Your task to perform on an android device: allow notifications from all sites in the chrome app Image 0: 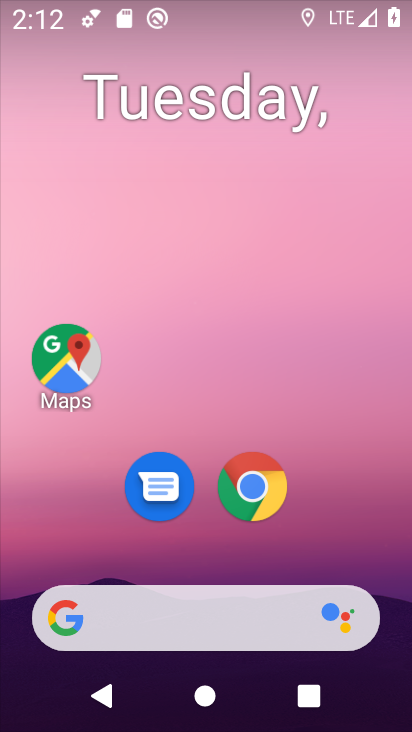
Step 0: drag from (364, 433) to (371, 92)
Your task to perform on an android device: allow notifications from all sites in the chrome app Image 1: 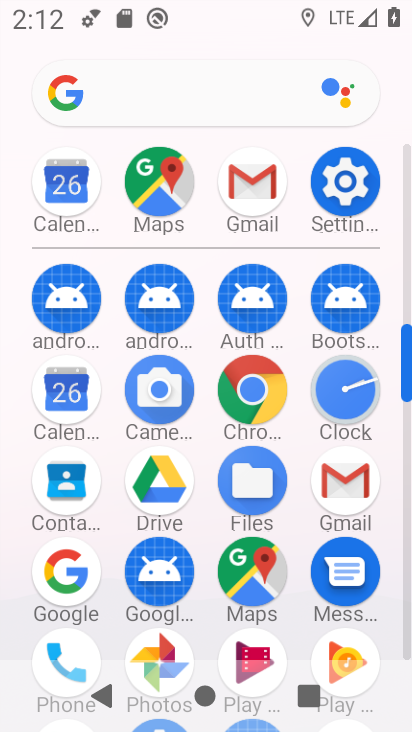
Step 1: click (256, 386)
Your task to perform on an android device: allow notifications from all sites in the chrome app Image 2: 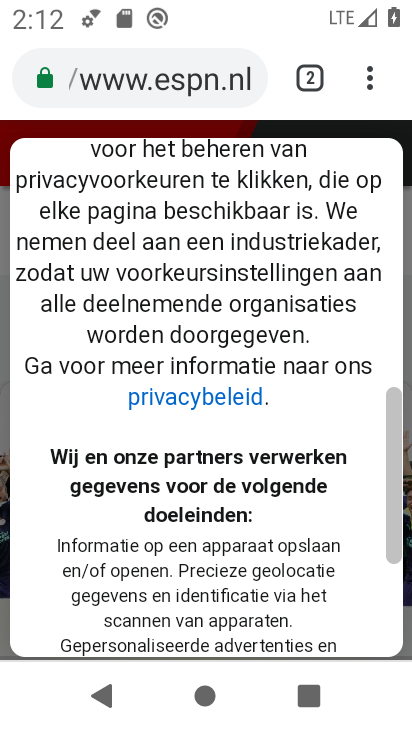
Step 2: click (369, 86)
Your task to perform on an android device: allow notifications from all sites in the chrome app Image 3: 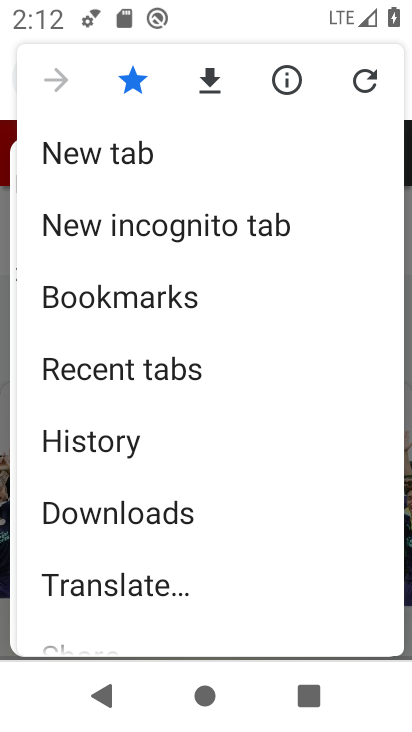
Step 3: drag from (299, 383) to (300, 307)
Your task to perform on an android device: allow notifications from all sites in the chrome app Image 4: 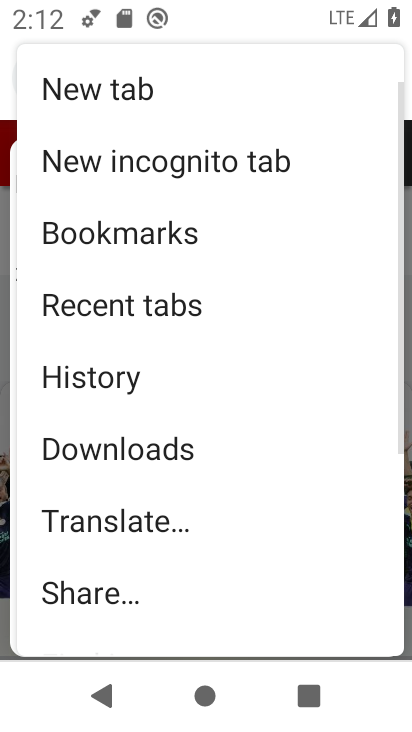
Step 4: drag from (302, 454) to (310, 336)
Your task to perform on an android device: allow notifications from all sites in the chrome app Image 5: 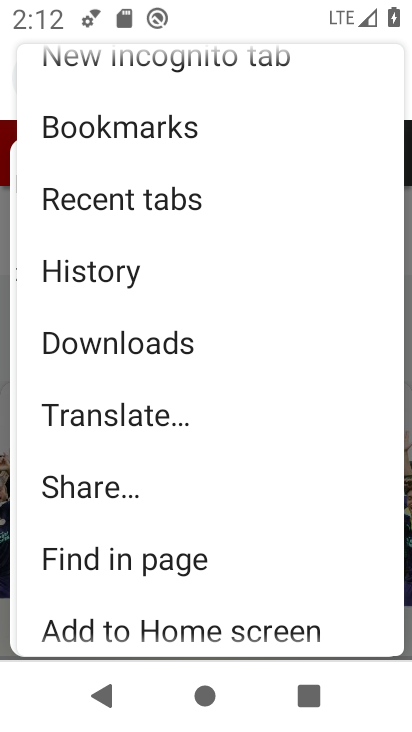
Step 5: drag from (317, 451) to (320, 373)
Your task to perform on an android device: allow notifications from all sites in the chrome app Image 6: 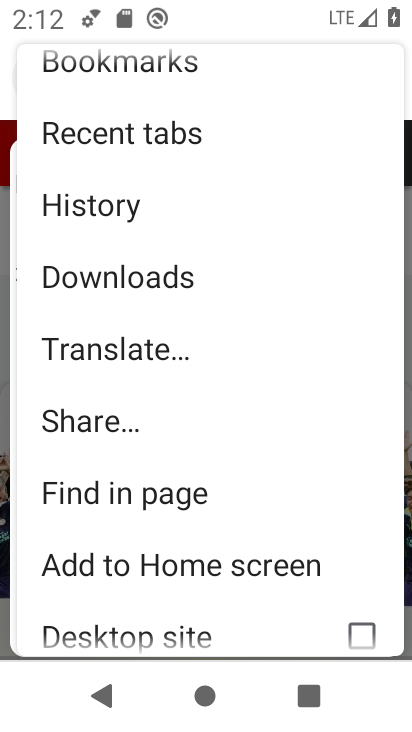
Step 6: drag from (331, 479) to (331, 403)
Your task to perform on an android device: allow notifications from all sites in the chrome app Image 7: 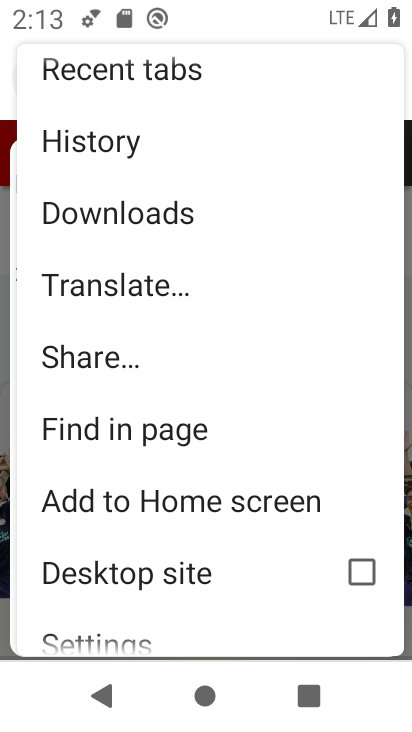
Step 7: drag from (304, 535) to (304, 434)
Your task to perform on an android device: allow notifications from all sites in the chrome app Image 8: 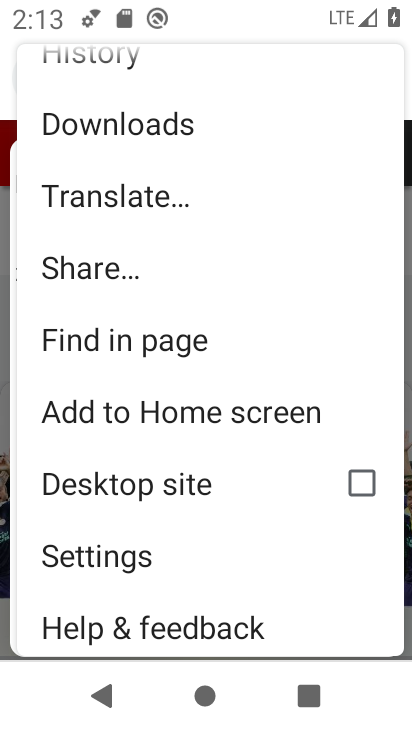
Step 8: drag from (293, 547) to (295, 450)
Your task to perform on an android device: allow notifications from all sites in the chrome app Image 9: 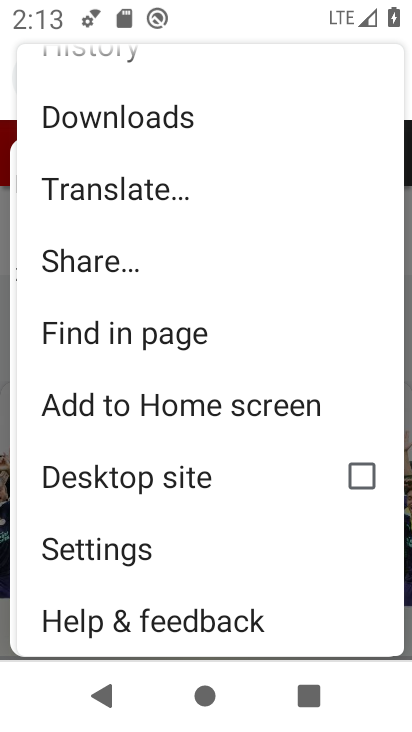
Step 9: click (188, 556)
Your task to perform on an android device: allow notifications from all sites in the chrome app Image 10: 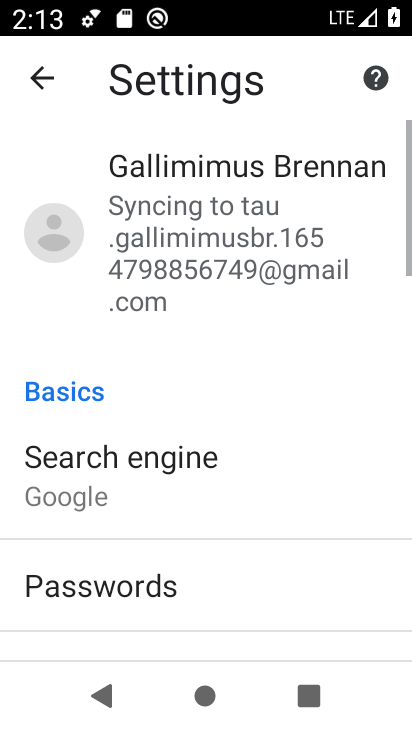
Step 10: drag from (286, 518) to (289, 424)
Your task to perform on an android device: allow notifications from all sites in the chrome app Image 11: 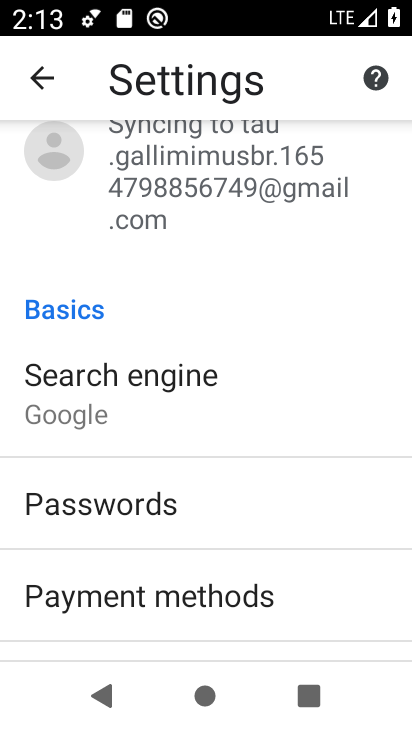
Step 11: drag from (306, 526) to (313, 445)
Your task to perform on an android device: allow notifications from all sites in the chrome app Image 12: 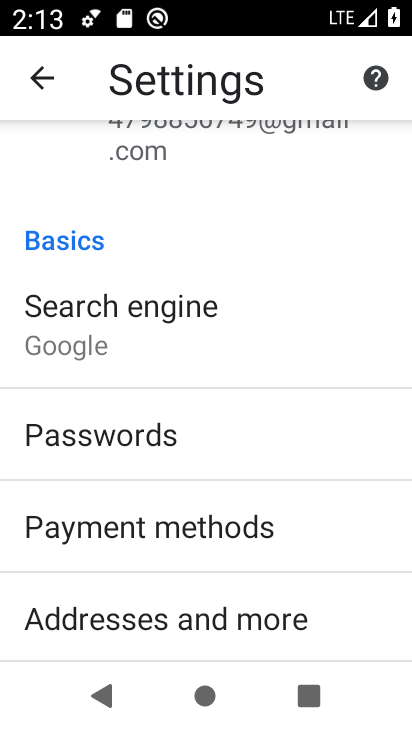
Step 12: drag from (351, 544) to (351, 461)
Your task to perform on an android device: allow notifications from all sites in the chrome app Image 13: 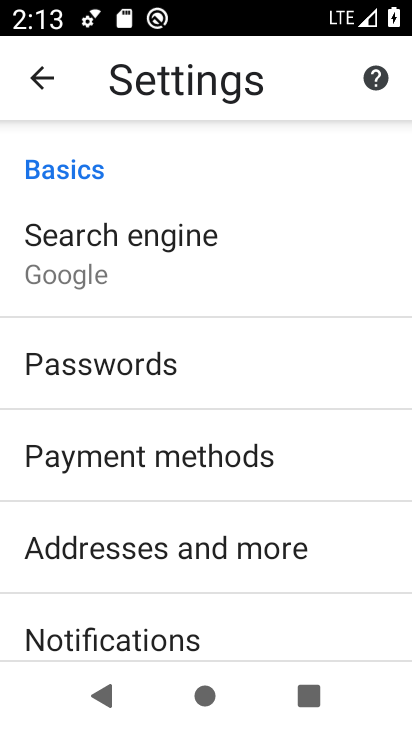
Step 13: drag from (345, 558) to (345, 464)
Your task to perform on an android device: allow notifications from all sites in the chrome app Image 14: 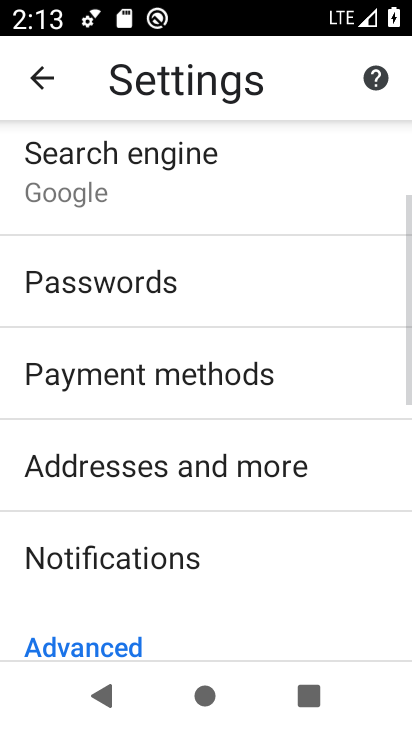
Step 14: drag from (345, 564) to (343, 483)
Your task to perform on an android device: allow notifications from all sites in the chrome app Image 15: 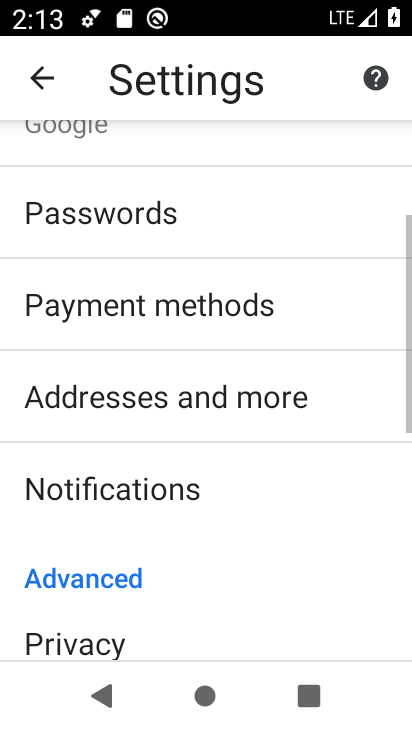
Step 15: drag from (344, 565) to (338, 469)
Your task to perform on an android device: allow notifications from all sites in the chrome app Image 16: 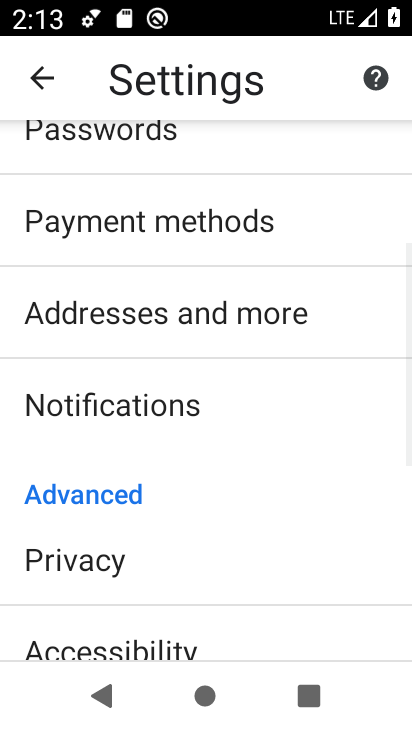
Step 16: drag from (336, 554) to (335, 464)
Your task to perform on an android device: allow notifications from all sites in the chrome app Image 17: 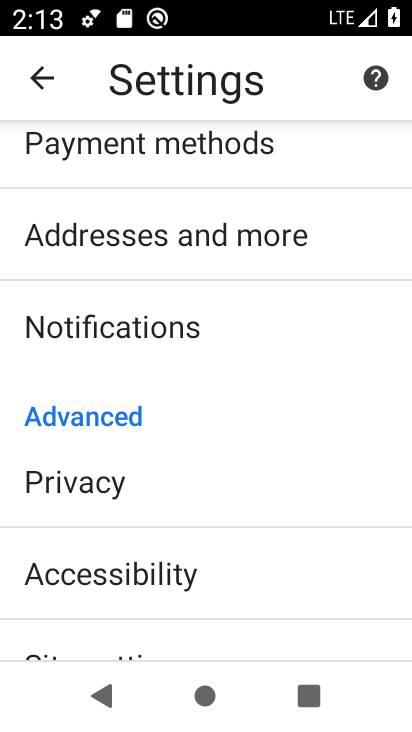
Step 17: drag from (333, 558) to (338, 485)
Your task to perform on an android device: allow notifications from all sites in the chrome app Image 18: 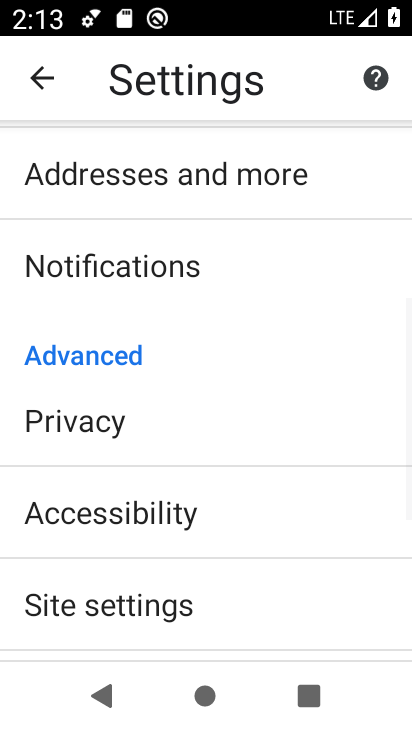
Step 18: drag from (328, 600) to (336, 487)
Your task to perform on an android device: allow notifications from all sites in the chrome app Image 19: 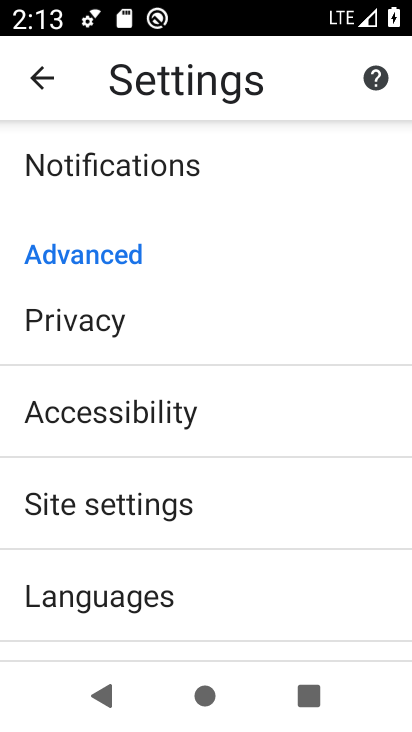
Step 19: drag from (329, 552) to (328, 458)
Your task to perform on an android device: allow notifications from all sites in the chrome app Image 20: 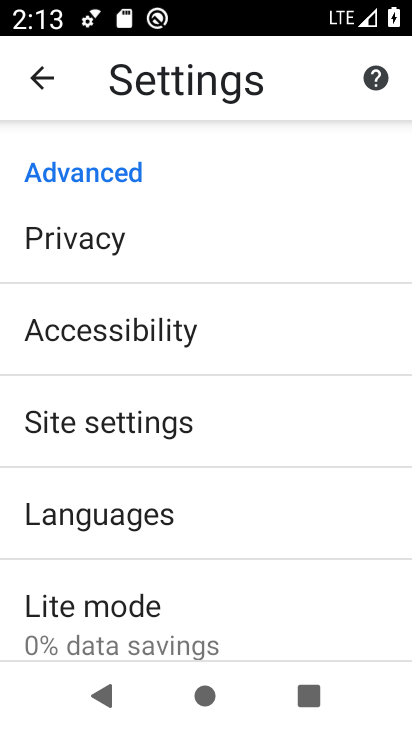
Step 20: drag from (304, 563) to (303, 448)
Your task to perform on an android device: allow notifications from all sites in the chrome app Image 21: 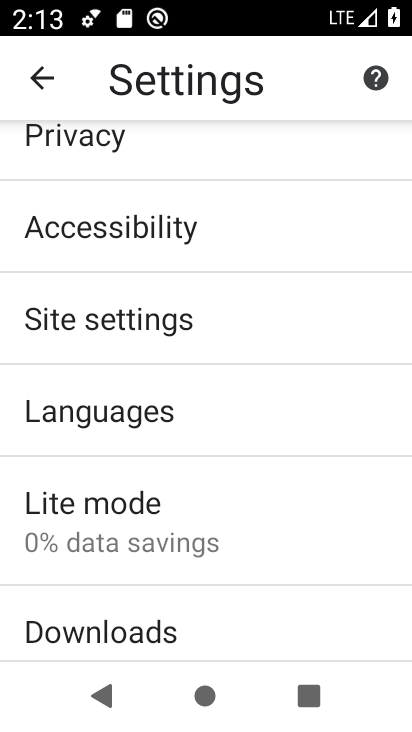
Step 21: drag from (288, 198) to (289, 414)
Your task to perform on an android device: allow notifications from all sites in the chrome app Image 22: 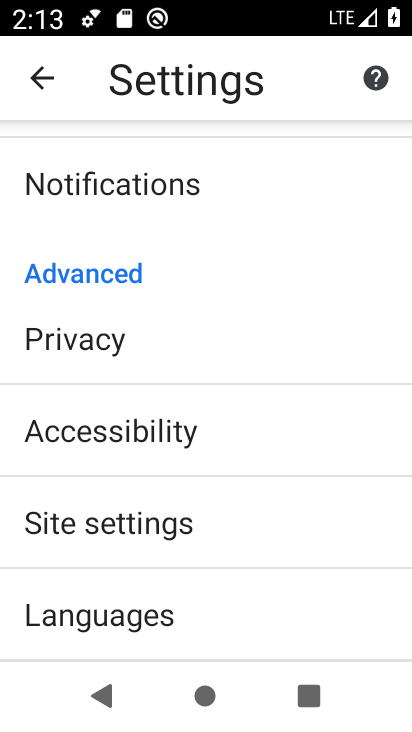
Step 22: click (259, 512)
Your task to perform on an android device: allow notifications from all sites in the chrome app Image 23: 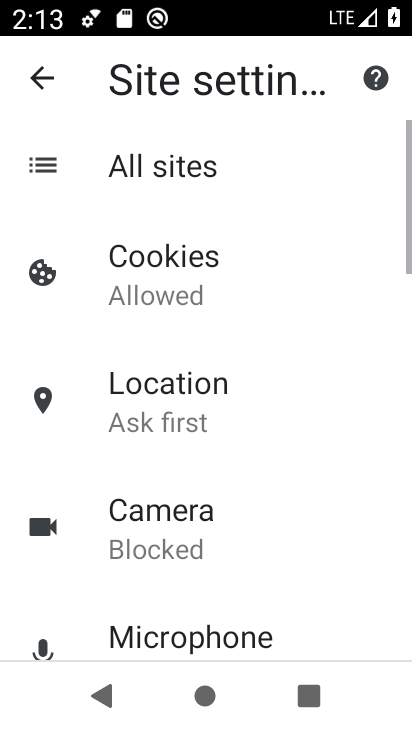
Step 23: drag from (259, 521) to (265, 429)
Your task to perform on an android device: allow notifications from all sites in the chrome app Image 24: 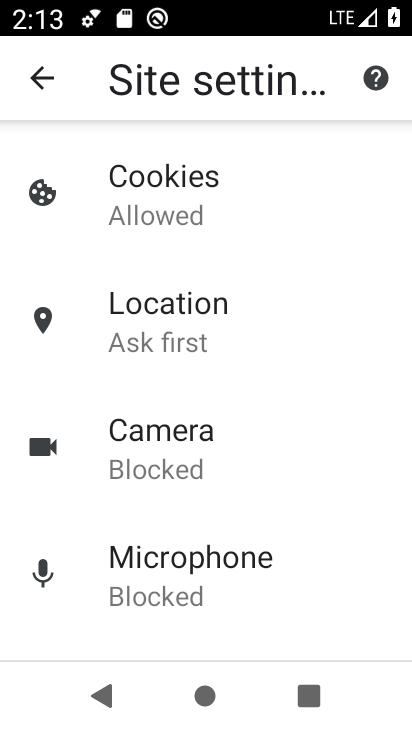
Step 24: drag from (267, 494) to (281, 349)
Your task to perform on an android device: allow notifications from all sites in the chrome app Image 25: 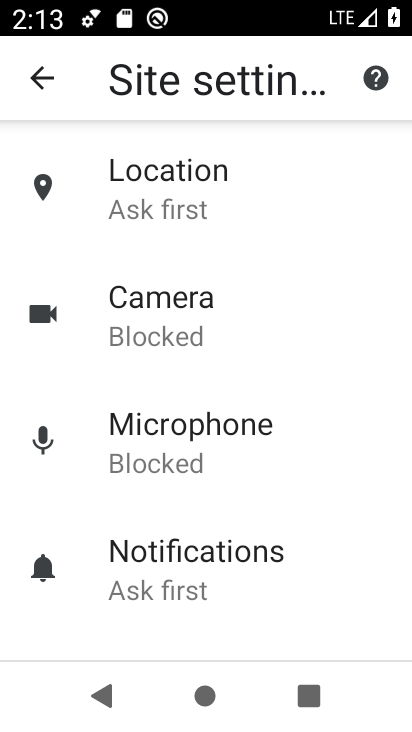
Step 25: drag from (315, 510) to (323, 352)
Your task to perform on an android device: allow notifications from all sites in the chrome app Image 26: 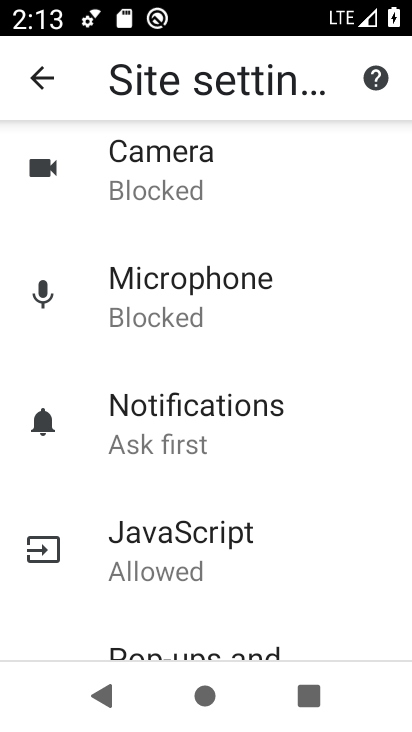
Step 26: click (311, 438)
Your task to perform on an android device: allow notifications from all sites in the chrome app Image 27: 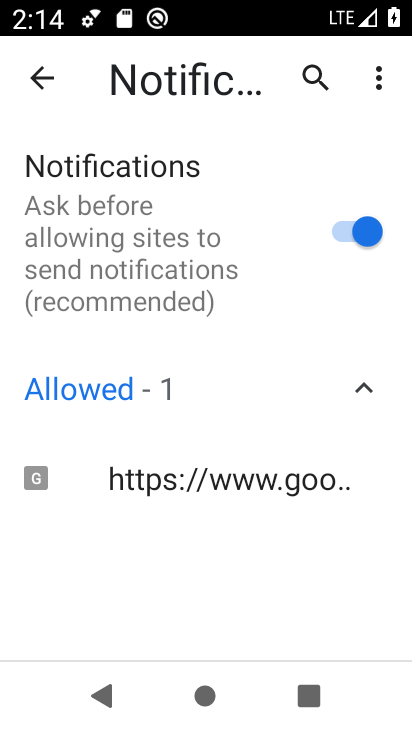
Step 27: task complete